Your task to perform on an android device: Open privacy settings Image 0: 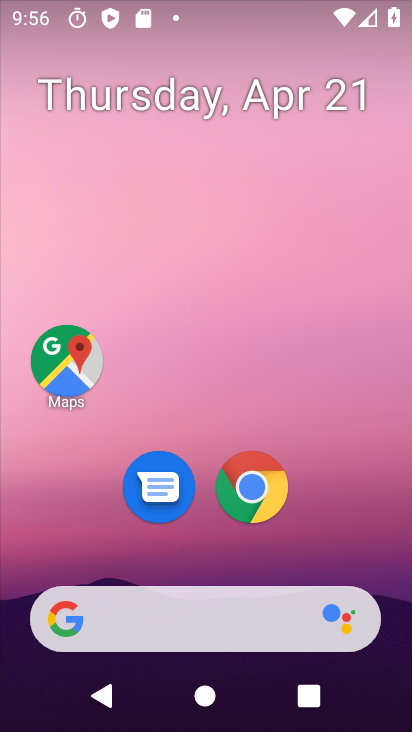
Step 0: click (371, 263)
Your task to perform on an android device: Open privacy settings Image 1: 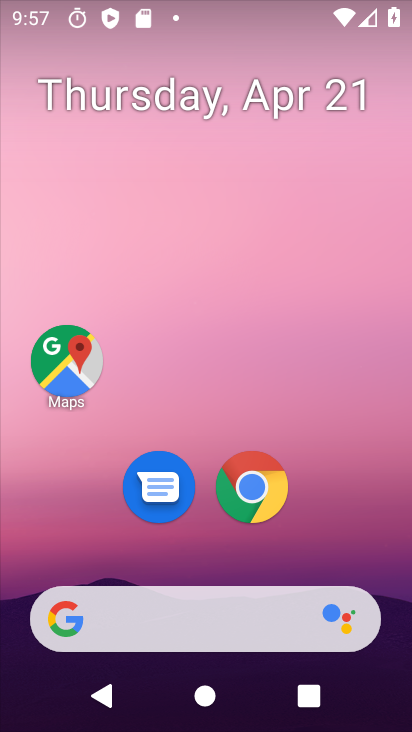
Step 1: click (248, 485)
Your task to perform on an android device: Open privacy settings Image 2: 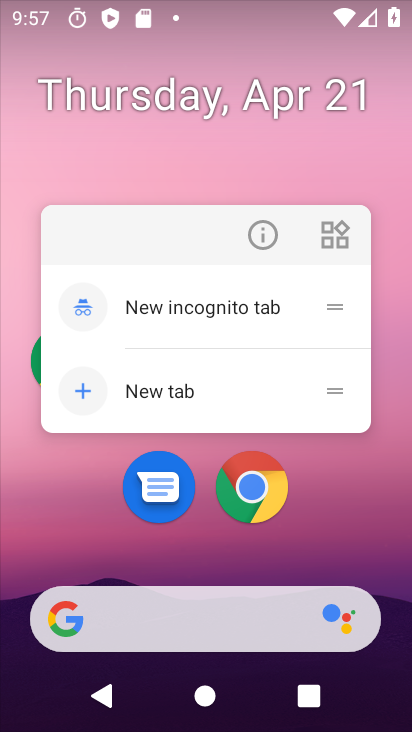
Step 2: click (248, 485)
Your task to perform on an android device: Open privacy settings Image 3: 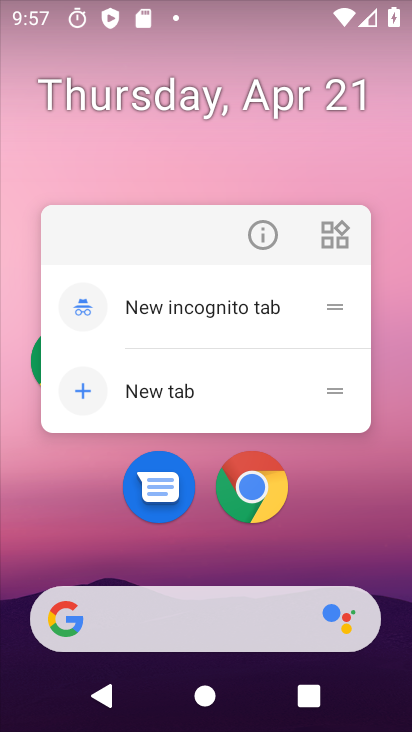
Step 3: click (248, 485)
Your task to perform on an android device: Open privacy settings Image 4: 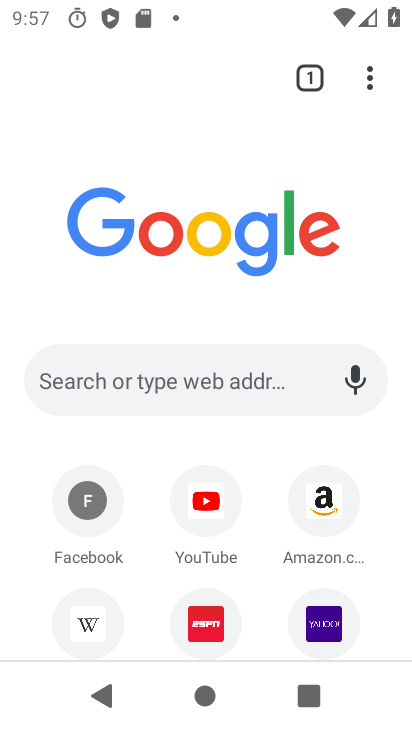
Step 4: click (370, 69)
Your task to perform on an android device: Open privacy settings Image 5: 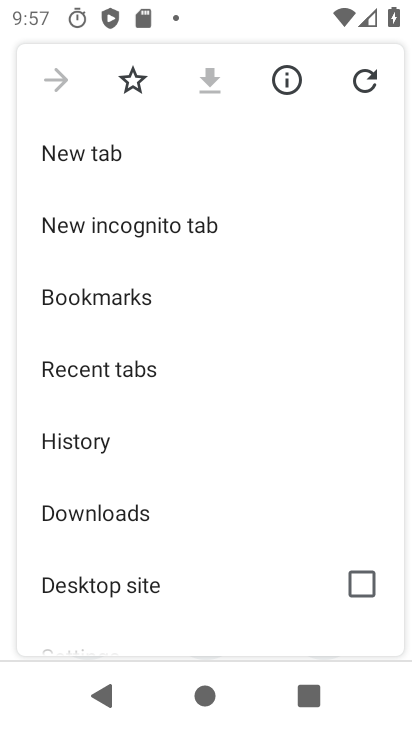
Step 5: drag from (253, 439) to (257, 226)
Your task to perform on an android device: Open privacy settings Image 6: 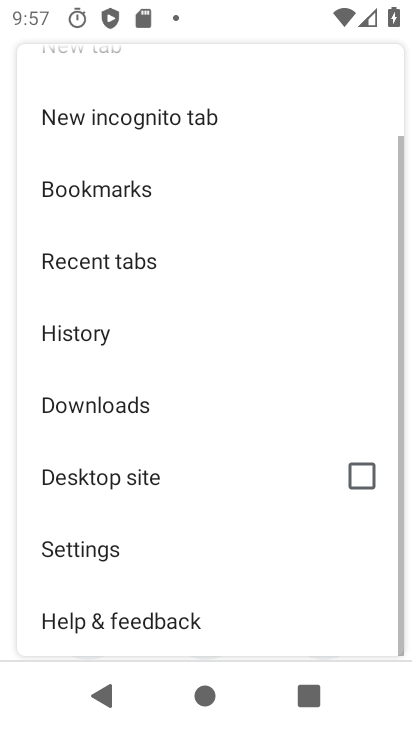
Step 6: click (83, 545)
Your task to perform on an android device: Open privacy settings Image 7: 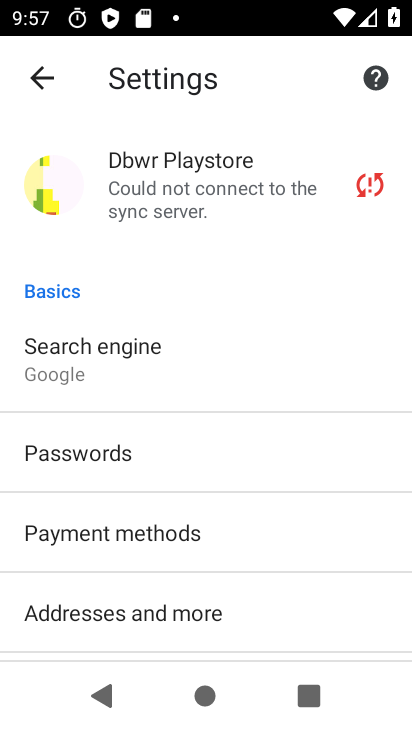
Step 7: drag from (314, 605) to (321, 337)
Your task to perform on an android device: Open privacy settings Image 8: 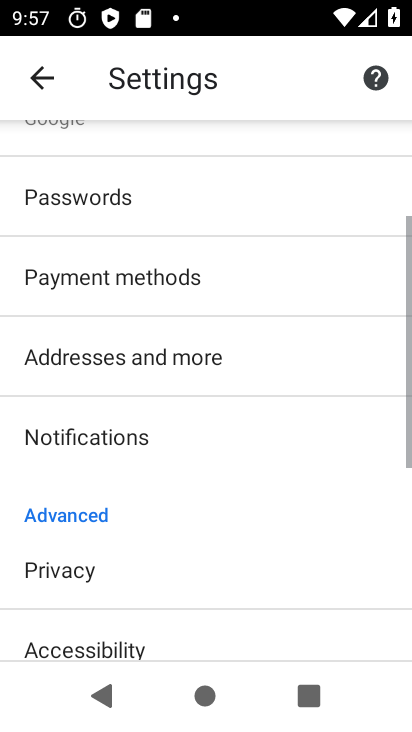
Step 8: click (70, 575)
Your task to perform on an android device: Open privacy settings Image 9: 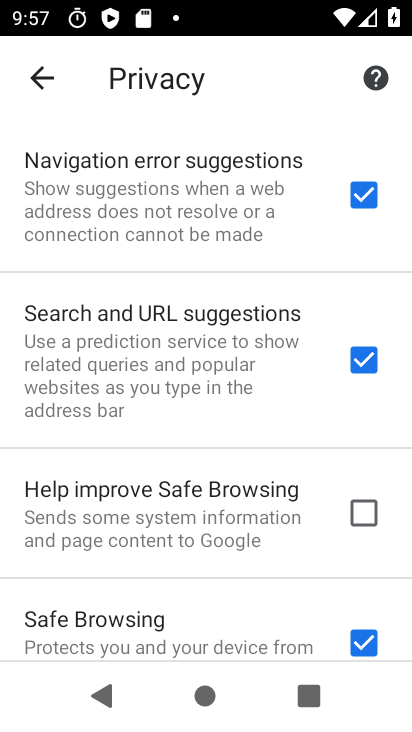
Step 9: task complete